Your task to perform on an android device: open app "HBO Max: Stream TV & Movies" (install if not already installed), go to login, and select forgot password Image 0: 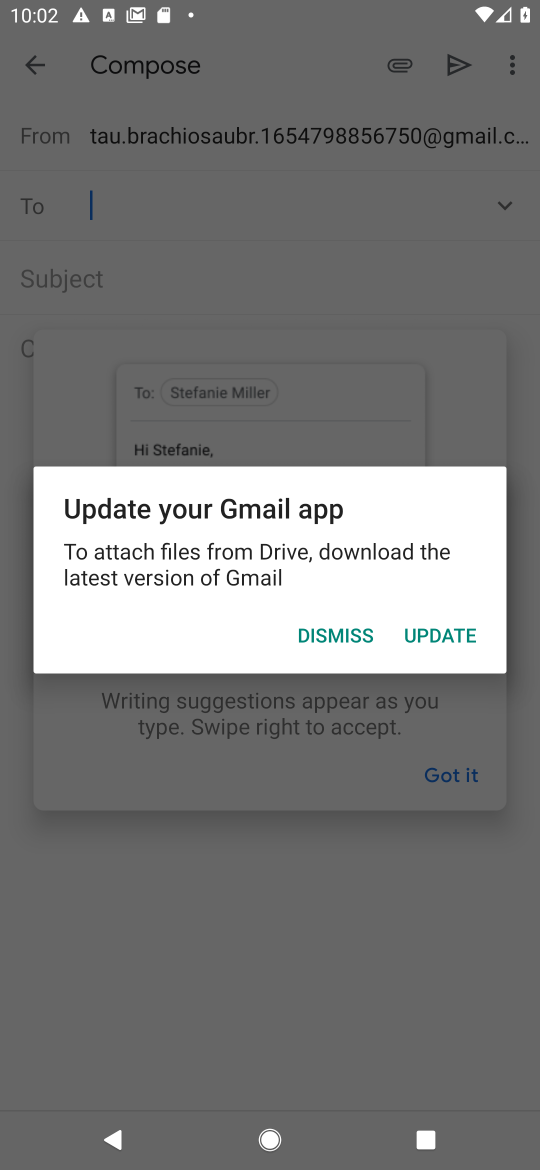
Step 0: press home button
Your task to perform on an android device: open app "HBO Max: Stream TV & Movies" (install if not already installed), go to login, and select forgot password Image 1: 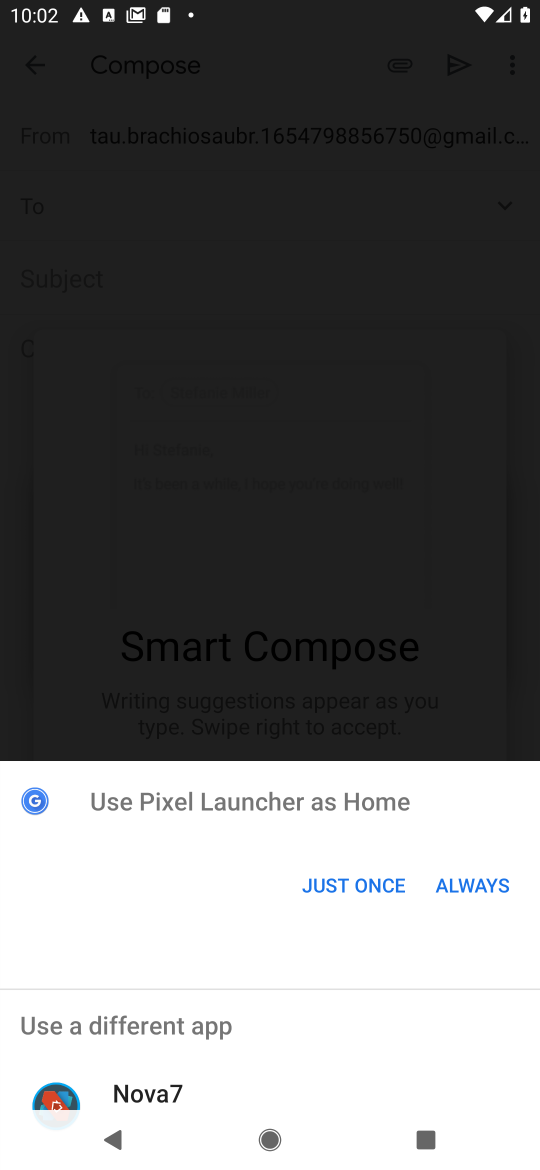
Step 1: press home button
Your task to perform on an android device: open app "HBO Max: Stream TV & Movies" (install if not already installed), go to login, and select forgot password Image 2: 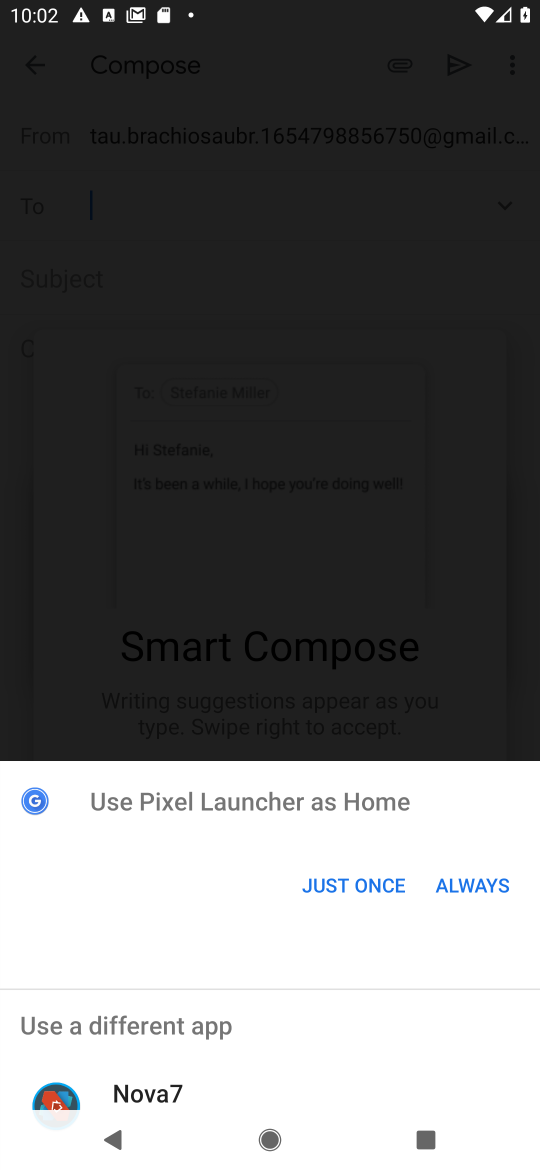
Step 2: press home button
Your task to perform on an android device: open app "HBO Max: Stream TV & Movies" (install if not already installed), go to login, and select forgot password Image 3: 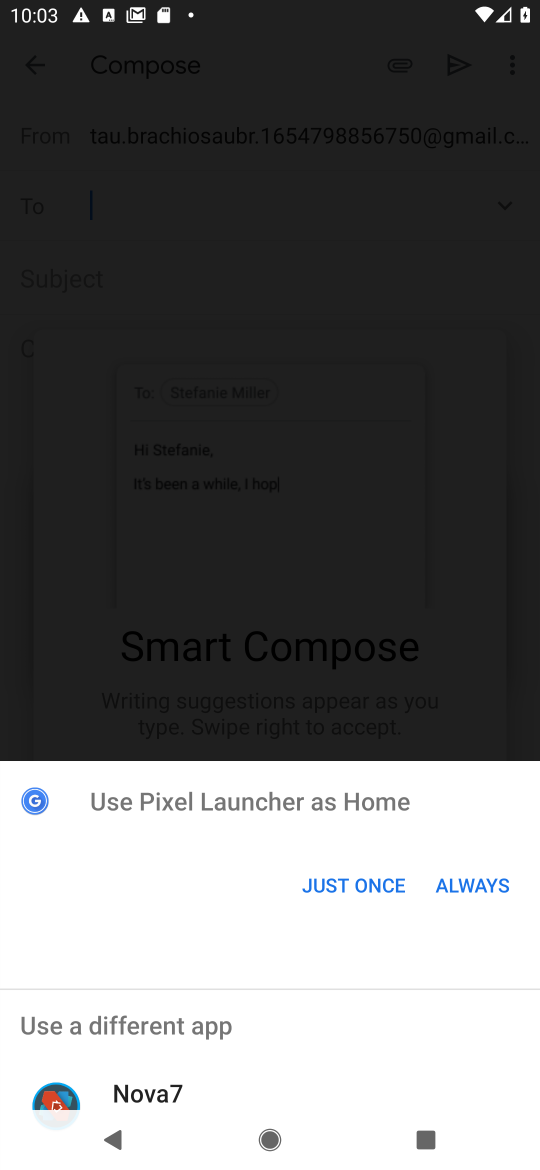
Step 3: click (362, 882)
Your task to perform on an android device: open app "HBO Max: Stream TV & Movies" (install if not already installed), go to login, and select forgot password Image 4: 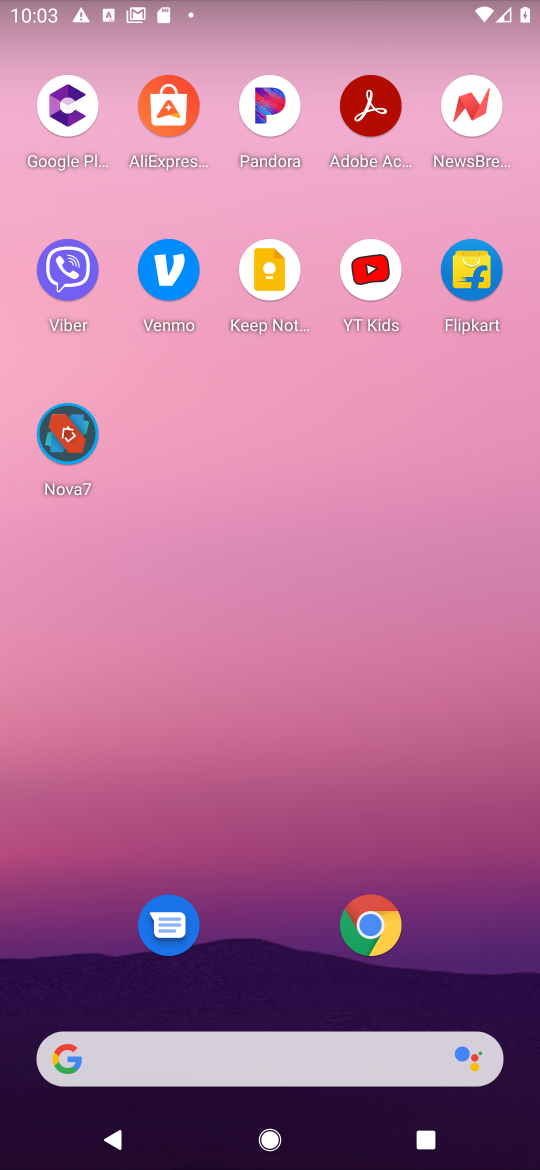
Step 4: drag from (250, 985) to (256, 335)
Your task to perform on an android device: open app "HBO Max: Stream TV & Movies" (install if not already installed), go to login, and select forgot password Image 5: 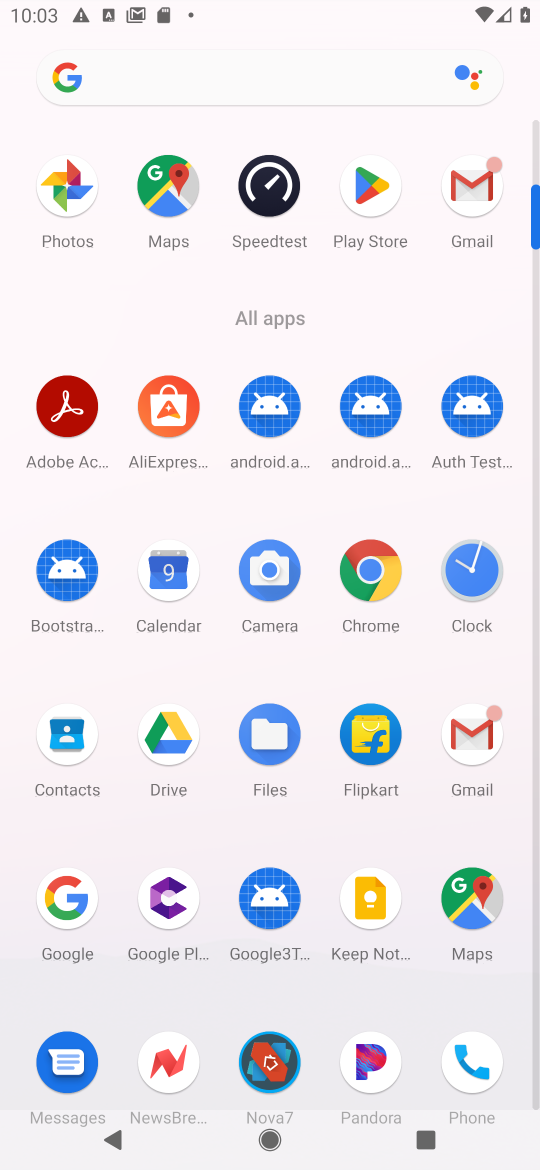
Step 5: click (382, 202)
Your task to perform on an android device: open app "HBO Max: Stream TV & Movies" (install if not already installed), go to login, and select forgot password Image 6: 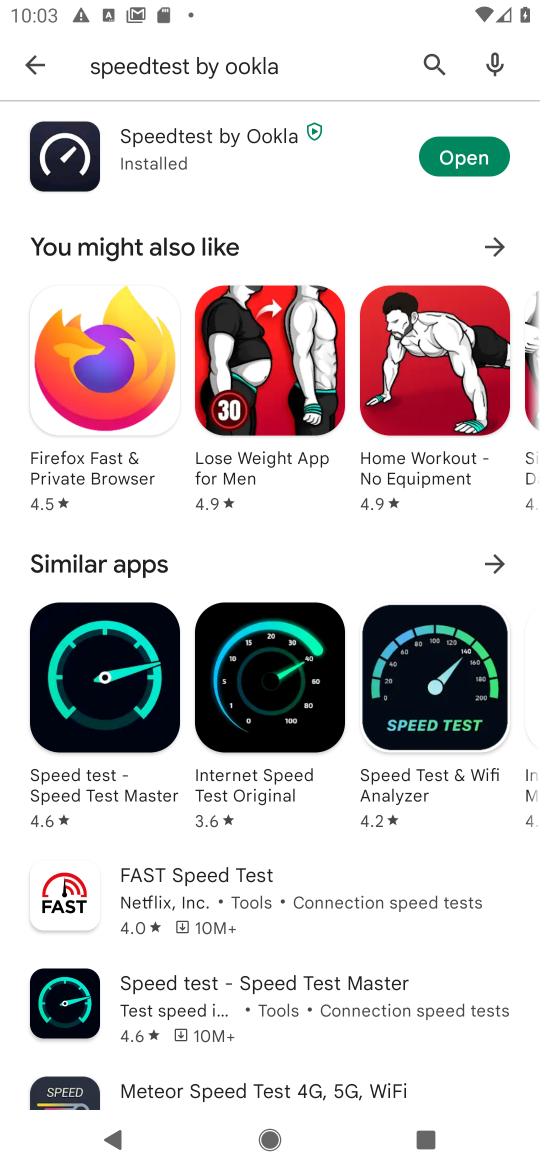
Step 6: click (36, 53)
Your task to perform on an android device: open app "HBO Max: Stream TV & Movies" (install if not already installed), go to login, and select forgot password Image 7: 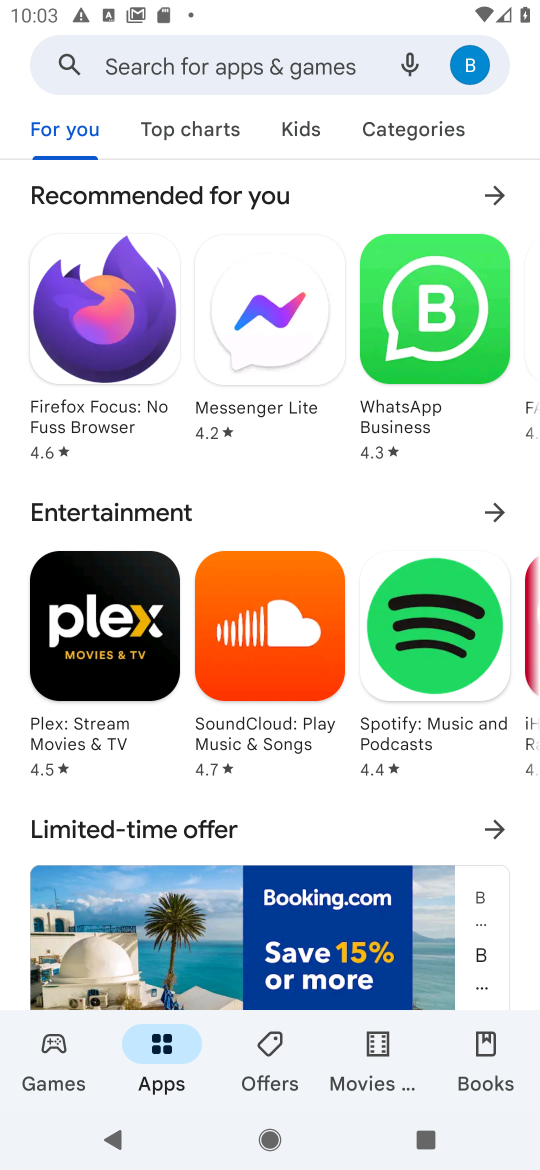
Step 7: click (159, 67)
Your task to perform on an android device: open app "HBO Max: Stream TV & Movies" (install if not already installed), go to login, and select forgot password Image 8: 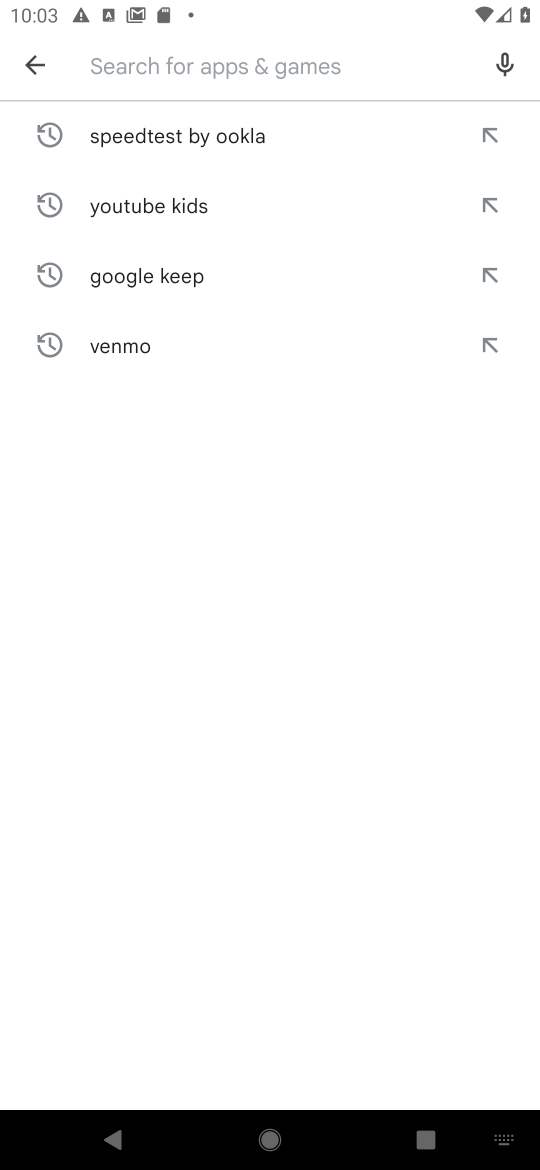
Step 8: type "HBO Max: Stream TV & Movies"
Your task to perform on an android device: open app "HBO Max: Stream TV & Movies" (install if not already installed), go to login, and select forgot password Image 9: 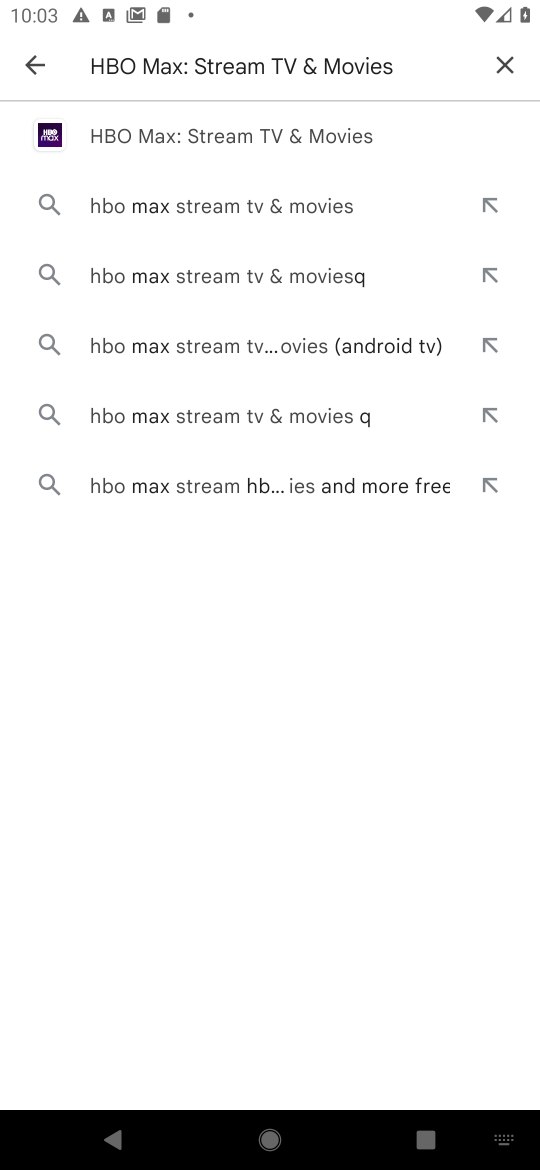
Step 9: click (297, 146)
Your task to perform on an android device: open app "HBO Max: Stream TV & Movies" (install if not already installed), go to login, and select forgot password Image 10: 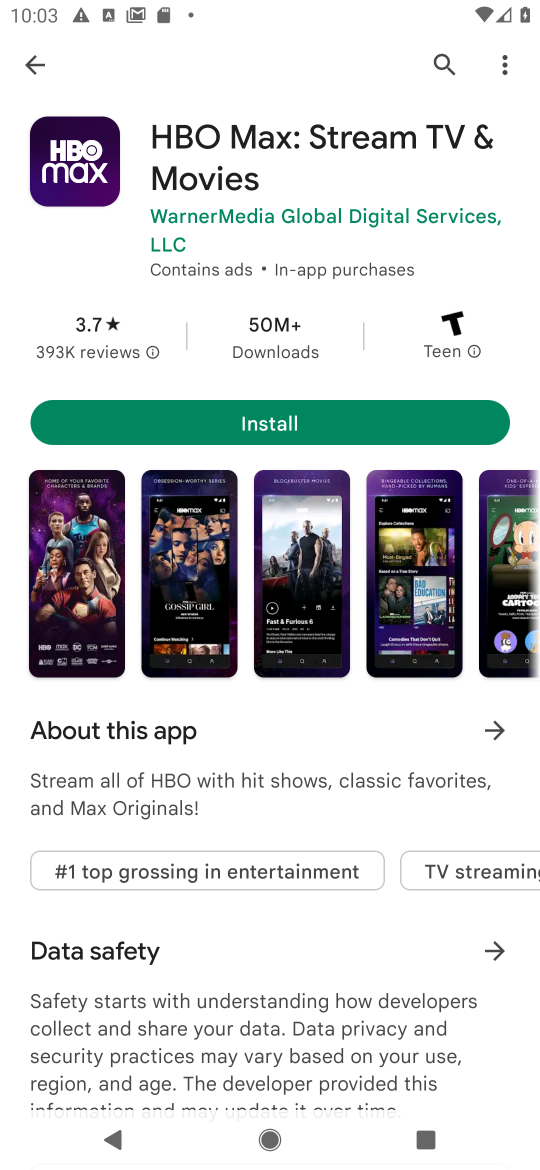
Step 10: click (258, 425)
Your task to perform on an android device: open app "HBO Max: Stream TV & Movies" (install if not already installed), go to login, and select forgot password Image 11: 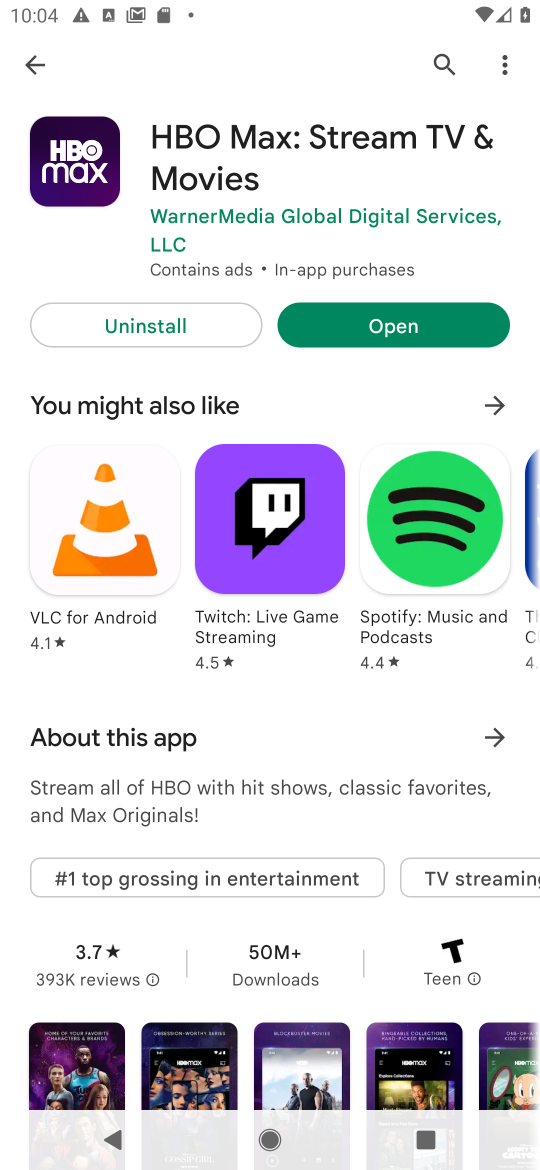
Step 11: click (349, 327)
Your task to perform on an android device: open app "HBO Max: Stream TV & Movies" (install if not already installed), go to login, and select forgot password Image 12: 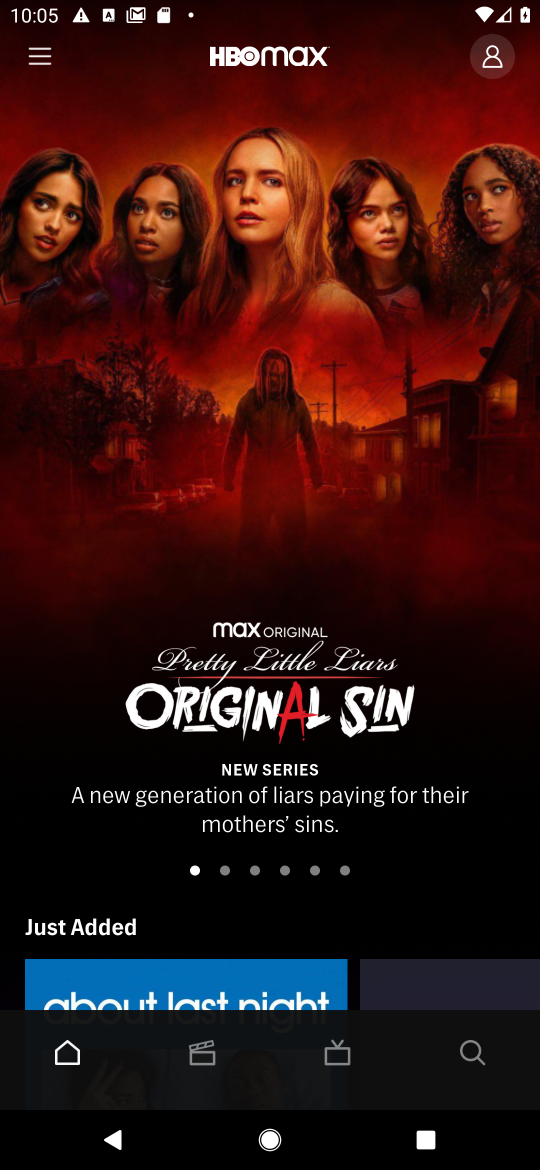
Step 12: drag from (208, 839) to (214, 568)
Your task to perform on an android device: open app "HBO Max: Stream TV & Movies" (install if not already installed), go to login, and select forgot password Image 13: 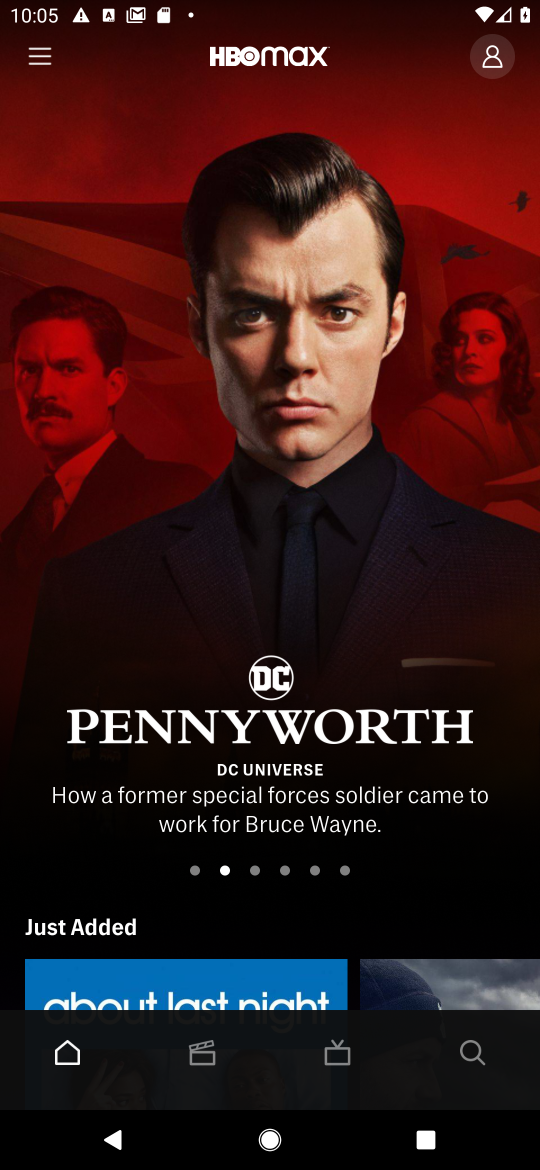
Step 13: click (490, 63)
Your task to perform on an android device: open app "HBO Max: Stream TV & Movies" (install if not already installed), go to login, and select forgot password Image 14: 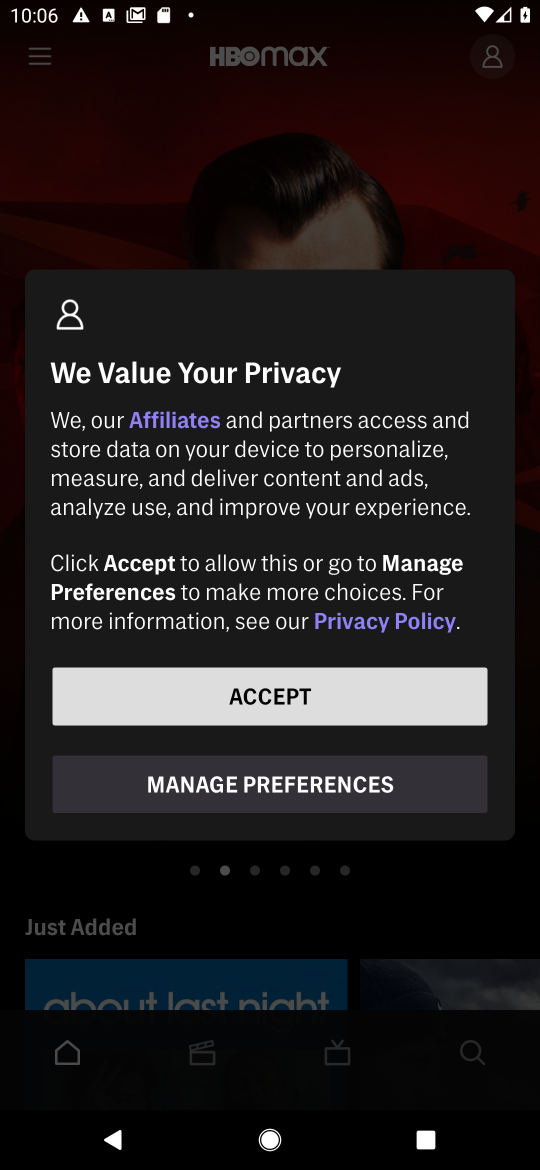
Step 14: task complete